Your task to perform on an android device: clear history in the chrome app Image 0: 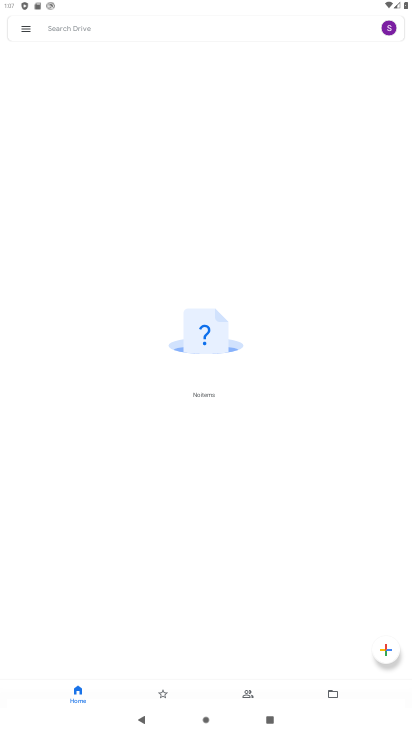
Step 0: press home button
Your task to perform on an android device: clear history in the chrome app Image 1: 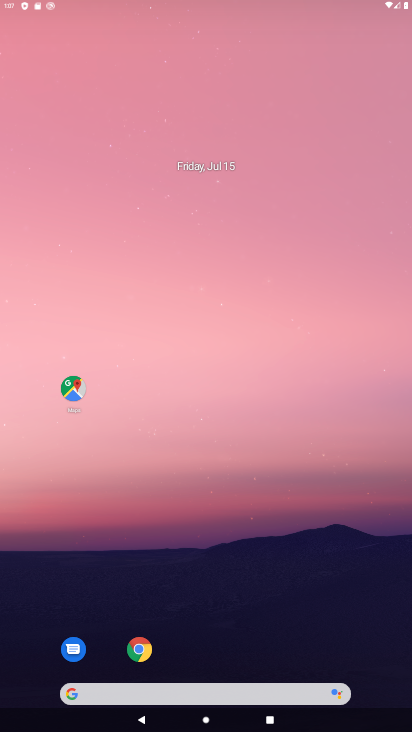
Step 1: drag from (248, 490) to (277, 9)
Your task to perform on an android device: clear history in the chrome app Image 2: 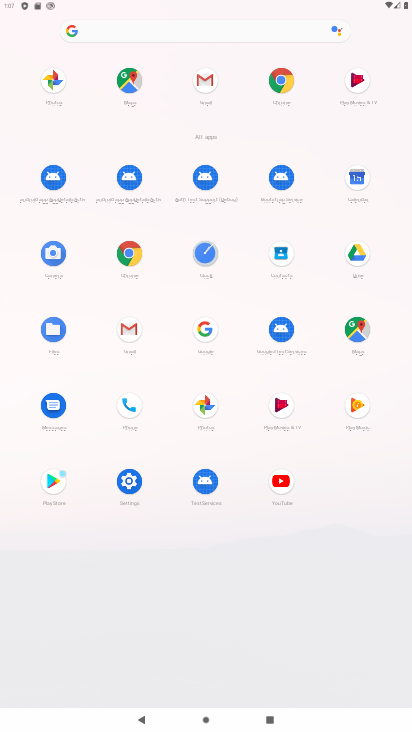
Step 2: click (125, 252)
Your task to perform on an android device: clear history in the chrome app Image 3: 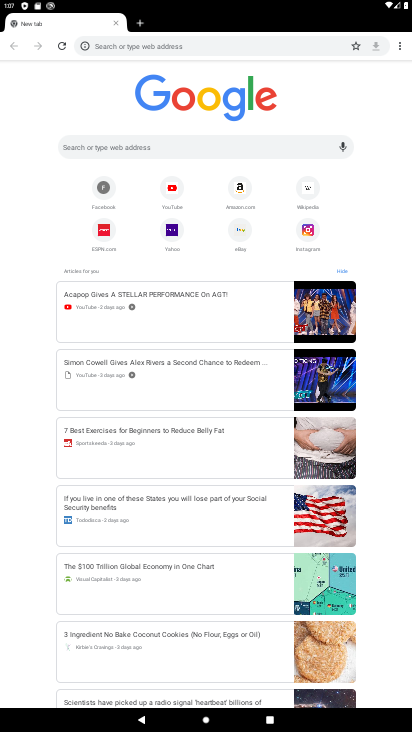
Step 3: task complete